Your task to perform on an android device: visit the assistant section in the google photos Image 0: 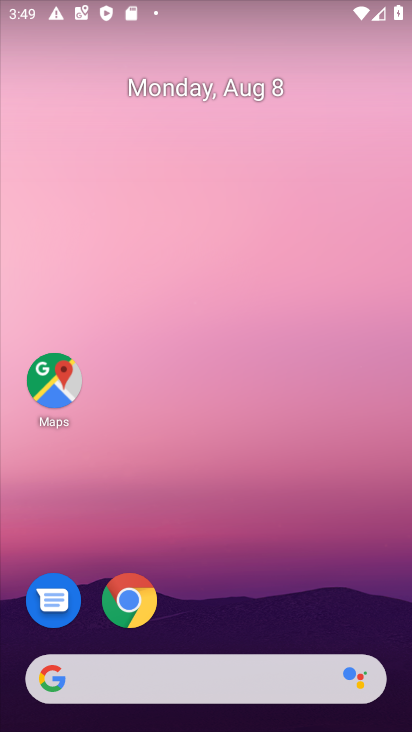
Step 0: drag from (391, 709) to (347, 55)
Your task to perform on an android device: visit the assistant section in the google photos Image 1: 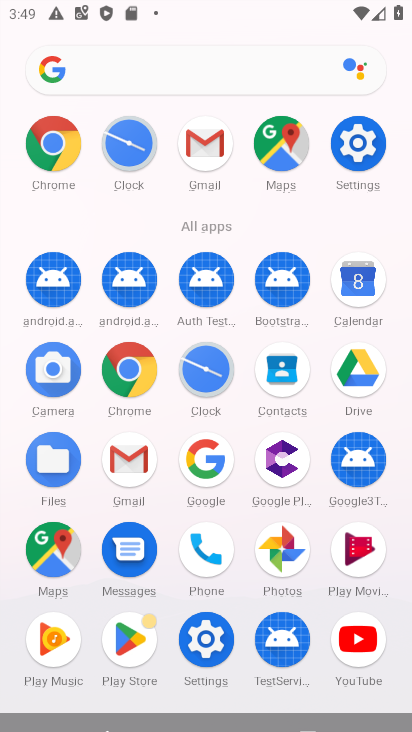
Step 1: click (280, 550)
Your task to perform on an android device: visit the assistant section in the google photos Image 2: 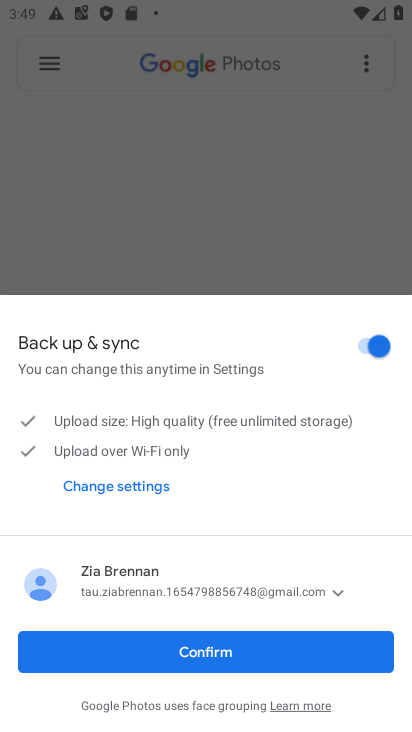
Step 2: click (170, 651)
Your task to perform on an android device: visit the assistant section in the google photos Image 3: 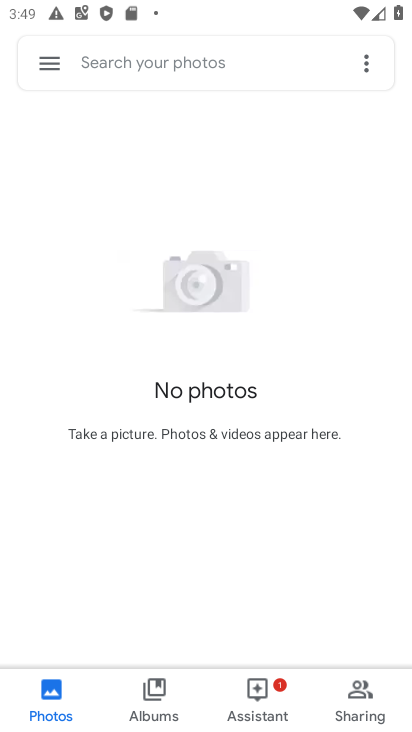
Step 3: click (251, 690)
Your task to perform on an android device: visit the assistant section in the google photos Image 4: 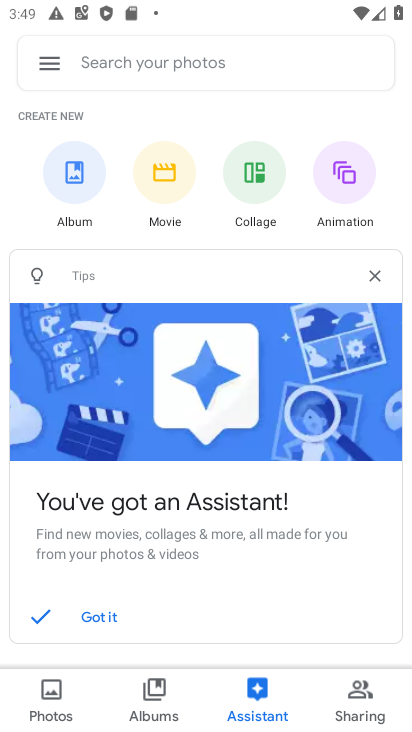
Step 4: click (256, 191)
Your task to perform on an android device: visit the assistant section in the google photos Image 5: 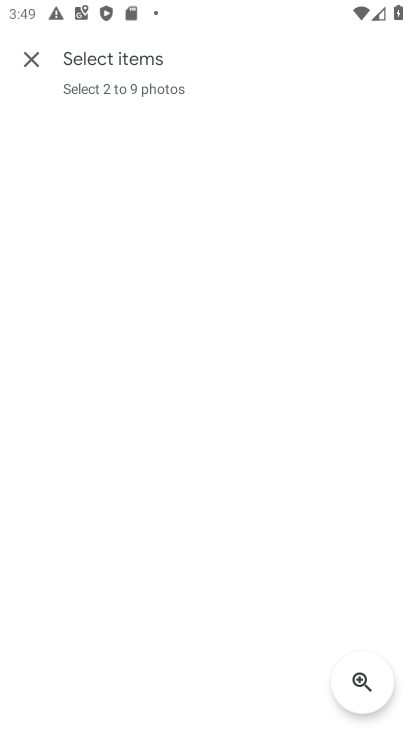
Step 5: click (35, 60)
Your task to perform on an android device: visit the assistant section in the google photos Image 6: 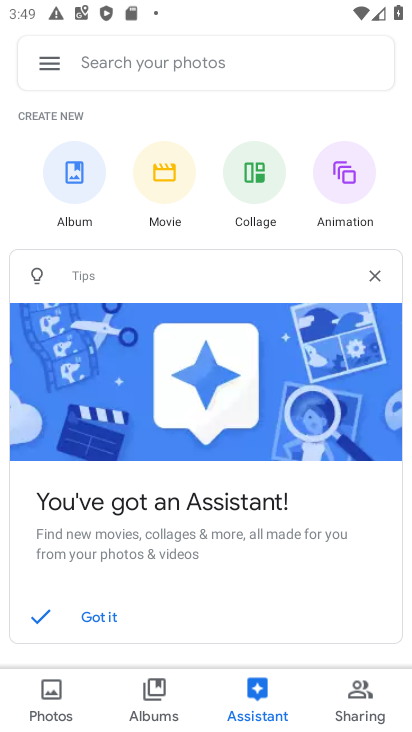
Step 6: click (160, 196)
Your task to perform on an android device: visit the assistant section in the google photos Image 7: 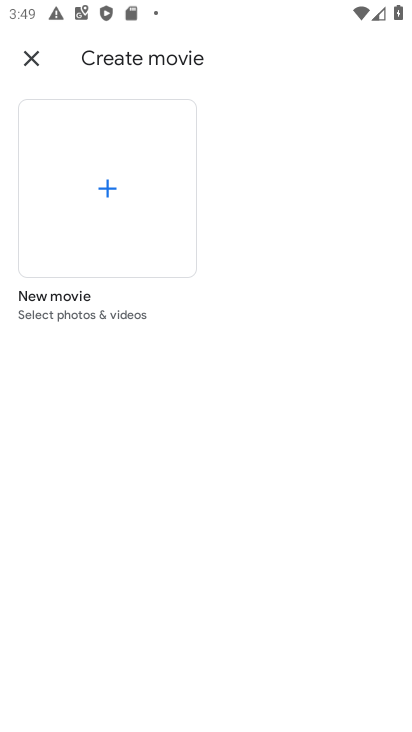
Step 7: click (27, 53)
Your task to perform on an android device: visit the assistant section in the google photos Image 8: 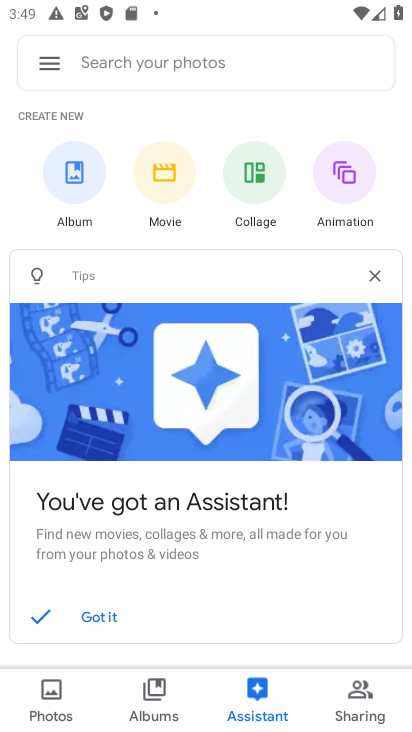
Step 8: task complete